Your task to perform on an android device: turn pop-ups on in chrome Image 0: 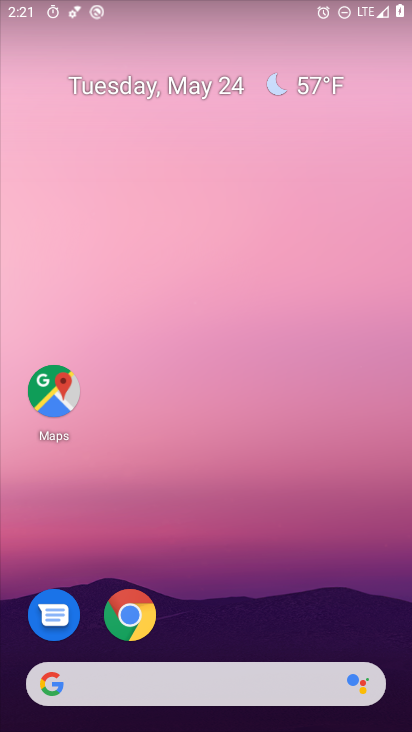
Step 0: click (118, 612)
Your task to perform on an android device: turn pop-ups on in chrome Image 1: 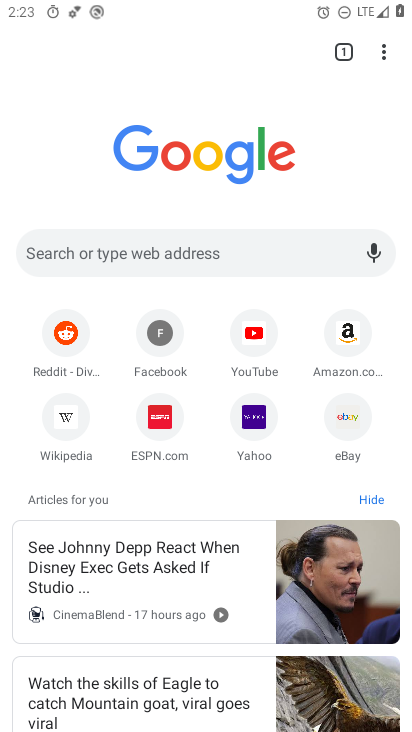
Step 1: click (384, 43)
Your task to perform on an android device: turn pop-ups on in chrome Image 2: 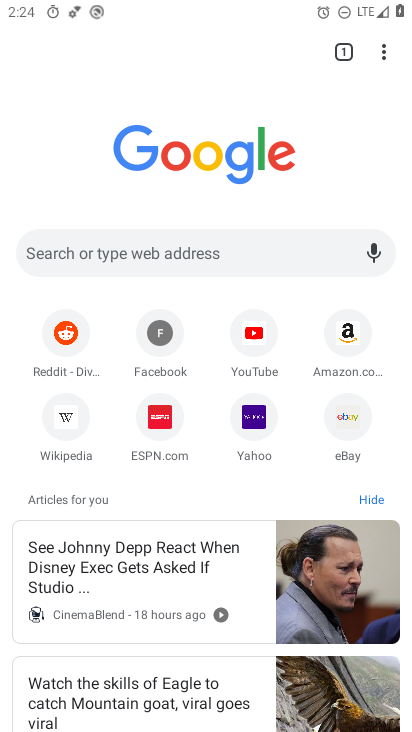
Step 2: click (380, 49)
Your task to perform on an android device: turn pop-ups on in chrome Image 3: 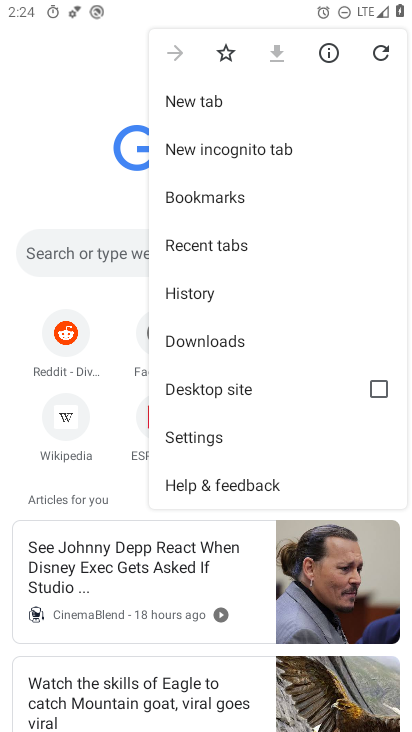
Step 3: click (211, 434)
Your task to perform on an android device: turn pop-ups on in chrome Image 4: 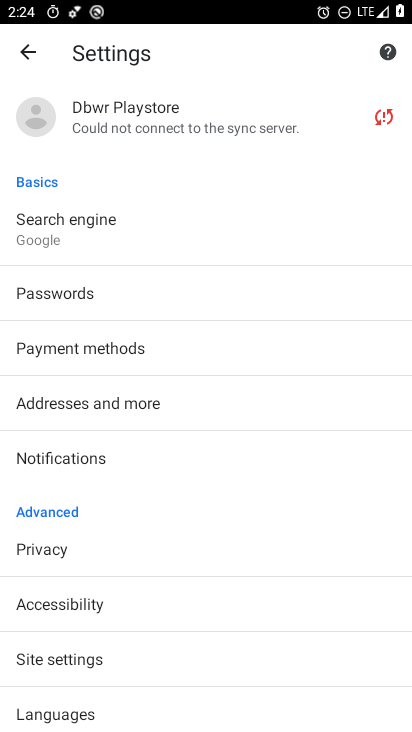
Step 4: click (58, 657)
Your task to perform on an android device: turn pop-ups on in chrome Image 5: 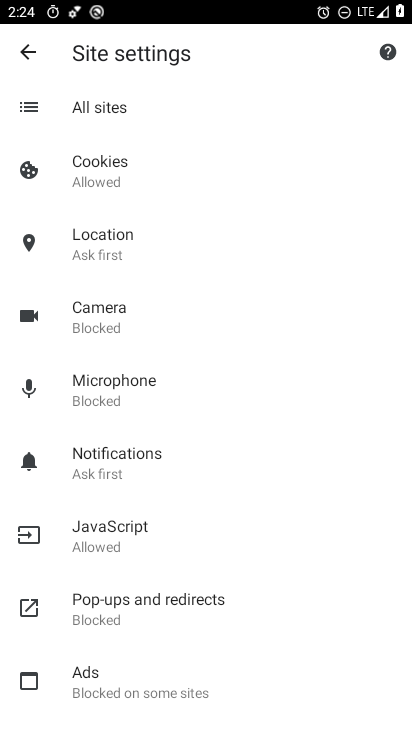
Step 5: click (84, 616)
Your task to perform on an android device: turn pop-ups on in chrome Image 6: 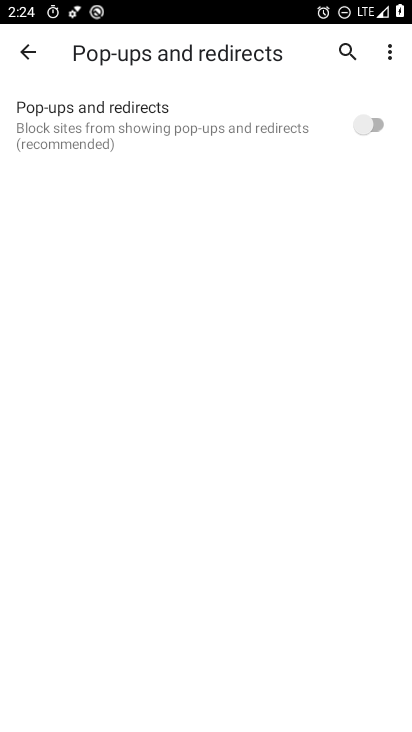
Step 6: click (375, 117)
Your task to perform on an android device: turn pop-ups on in chrome Image 7: 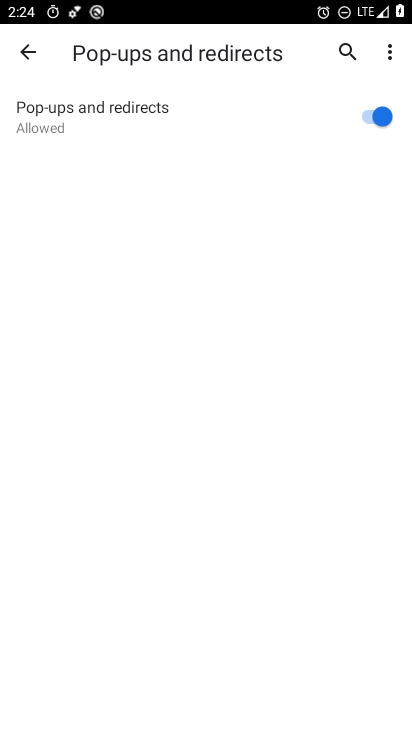
Step 7: task complete